Your task to perform on an android device: Is it going to rain today? Image 0: 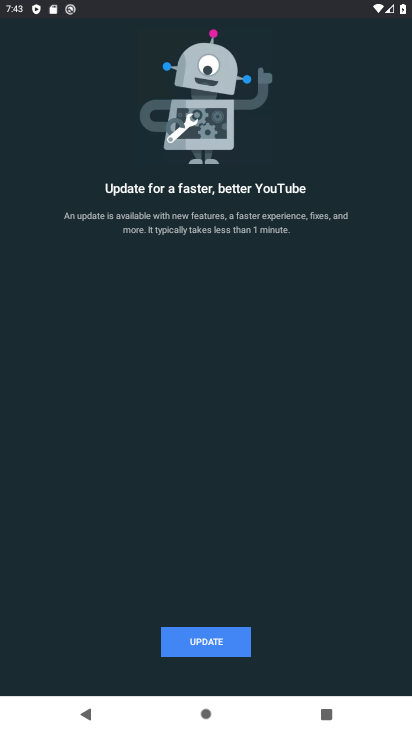
Step 0: press back button
Your task to perform on an android device: Is it going to rain today? Image 1: 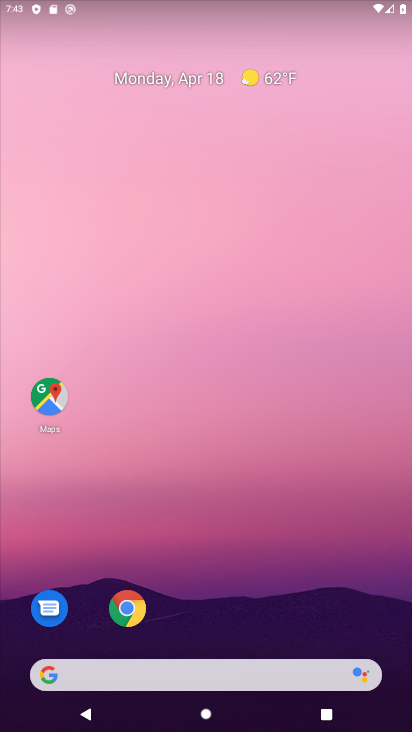
Step 1: drag from (44, 272) to (410, 239)
Your task to perform on an android device: Is it going to rain today? Image 2: 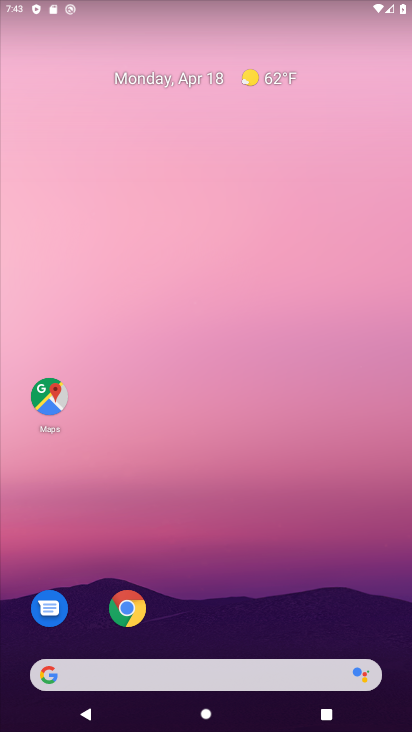
Step 2: drag from (5, 233) to (405, 256)
Your task to perform on an android device: Is it going to rain today? Image 3: 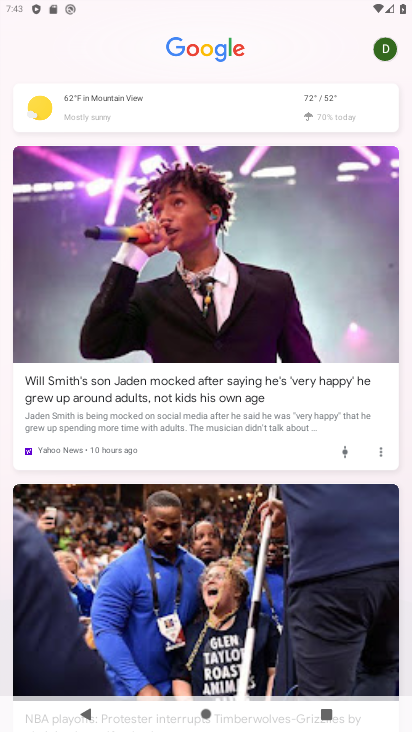
Step 3: click (43, 103)
Your task to perform on an android device: Is it going to rain today? Image 4: 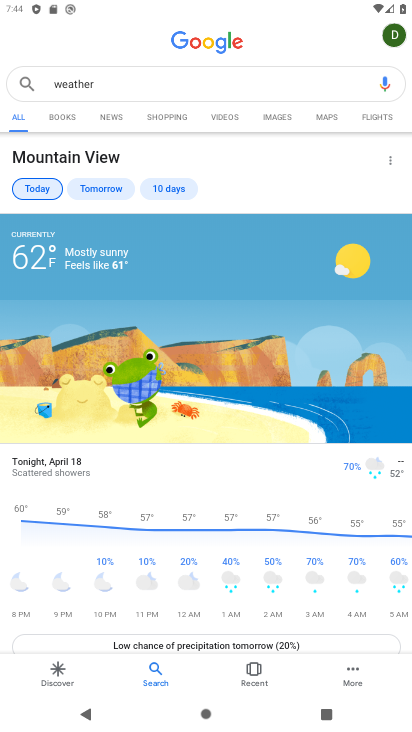
Step 4: task complete